Your task to perform on an android device: turn on data saver in the chrome app Image 0: 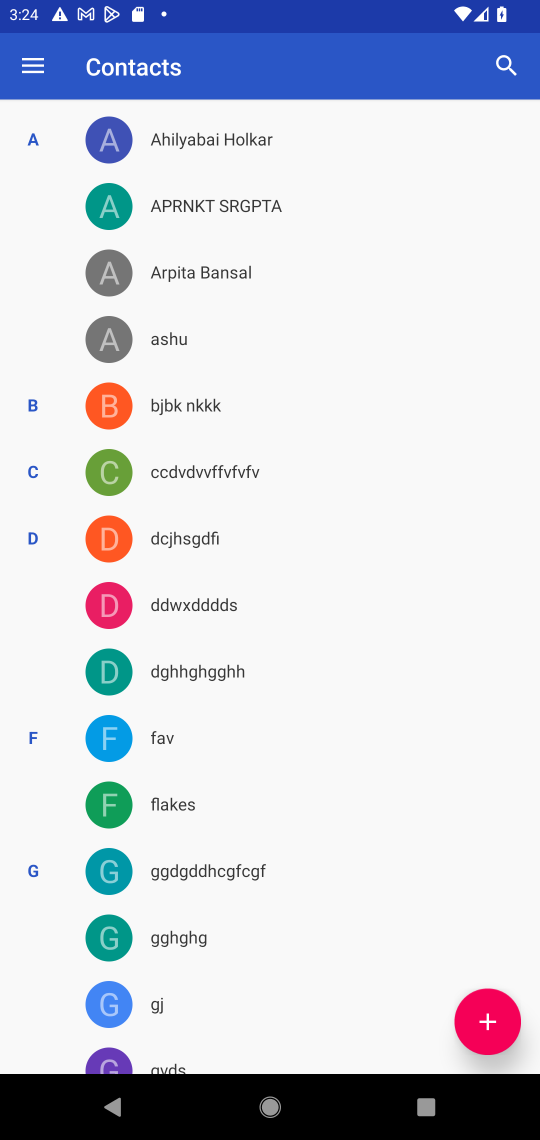
Step 0: press home button
Your task to perform on an android device: turn on data saver in the chrome app Image 1: 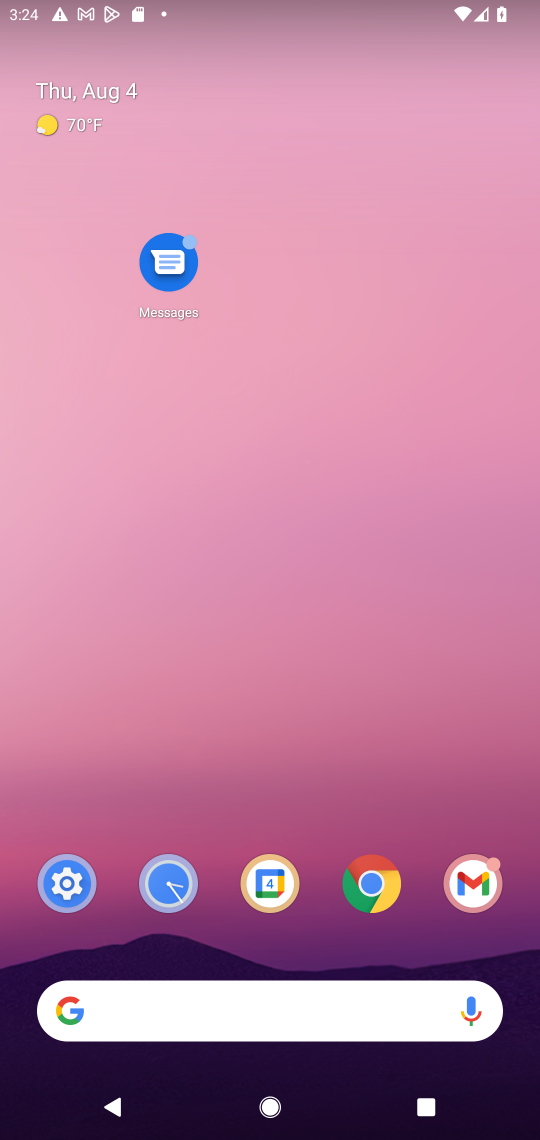
Step 1: click (369, 876)
Your task to perform on an android device: turn on data saver in the chrome app Image 2: 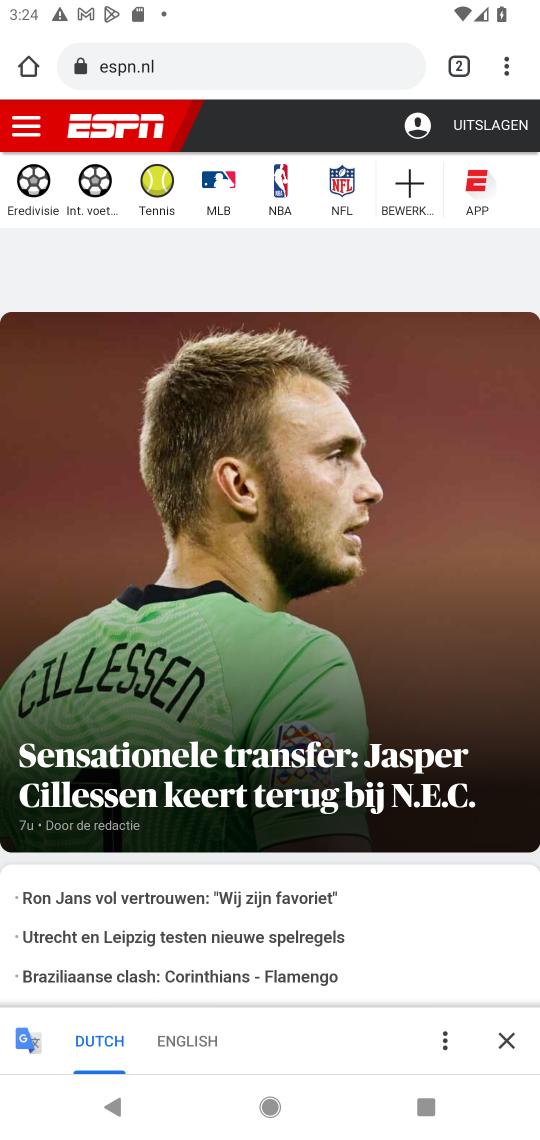
Step 2: click (505, 71)
Your task to perform on an android device: turn on data saver in the chrome app Image 3: 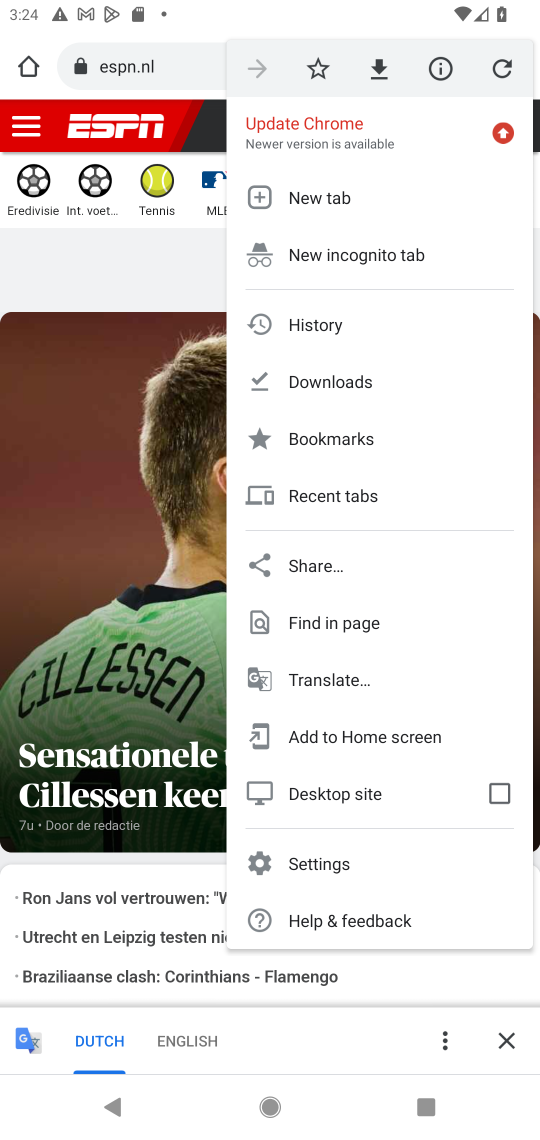
Step 3: click (323, 857)
Your task to perform on an android device: turn on data saver in the chrome app Image 4: 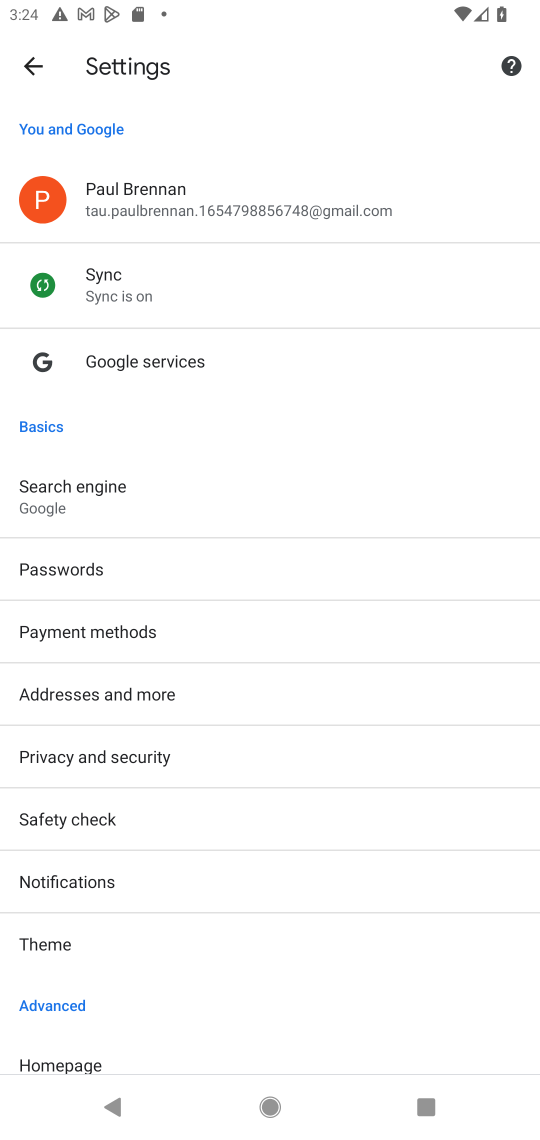
Step 4: drag from (174, 1019) to (174, 690)
Your task to perform on an android device: turn on data saver in the chrome app Image 5: 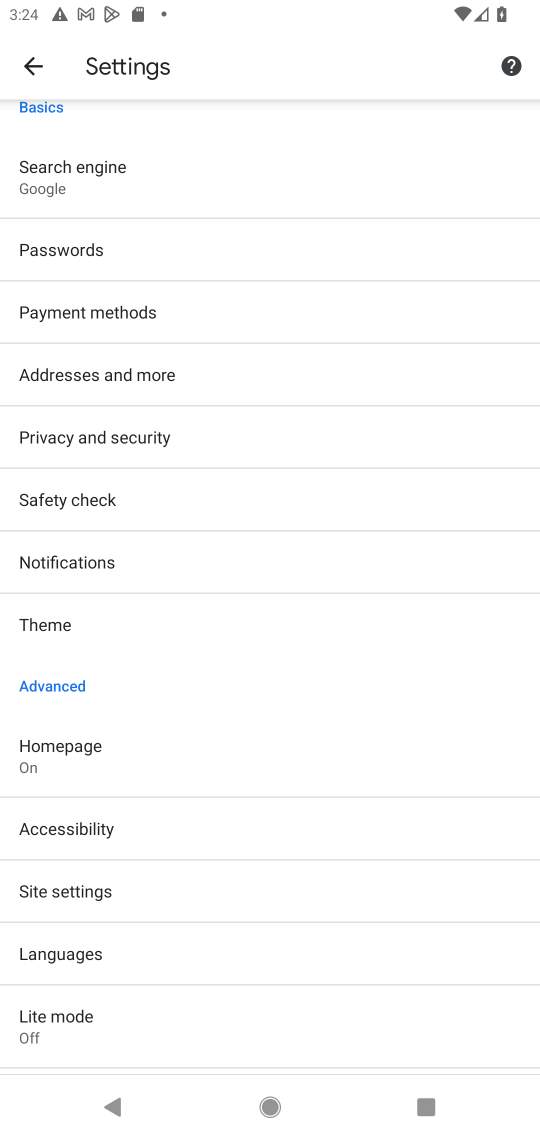
Step 5: click (75, 1019)
Your task to perform on an android device: turn on data saver in the chrome app Image 6: 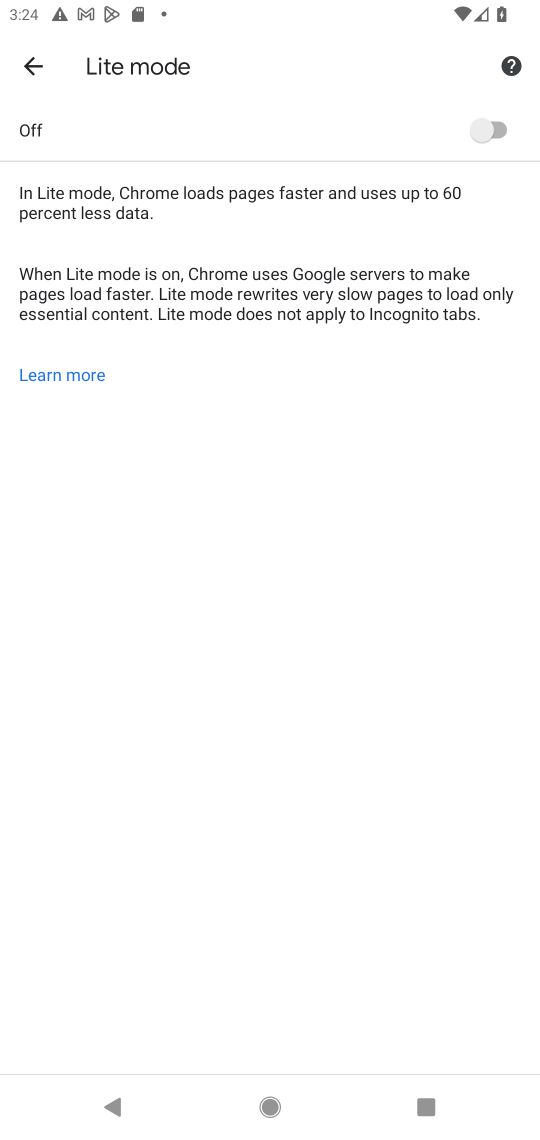
Step 6: click (509, 129)
Your task to perform on an android device: turn on data saver in the chrome app Image 7: 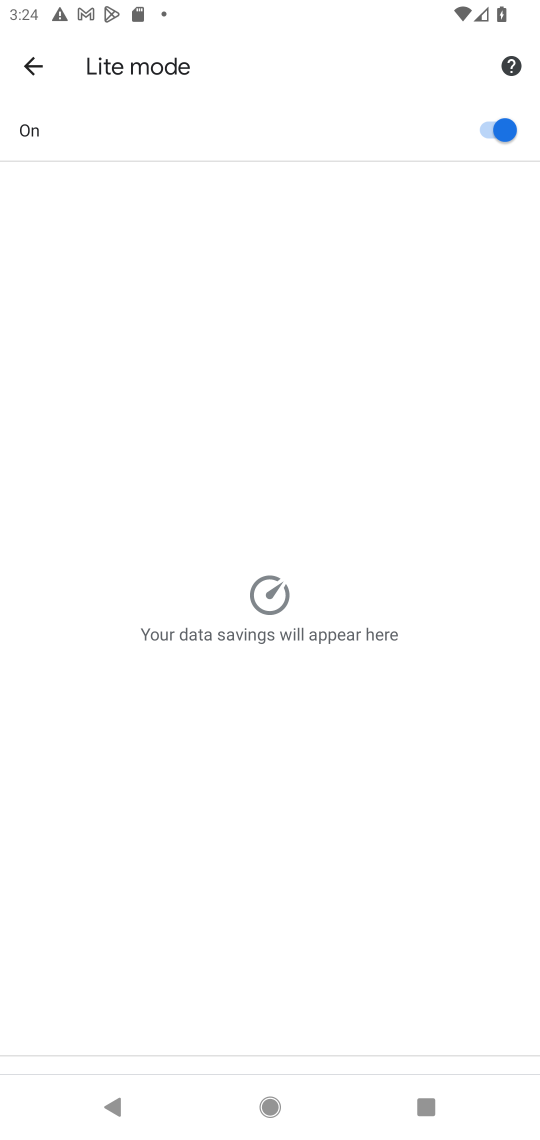
Step 7: task complete